Your task to perform on an android device: Open Yahoo.com Image 0: 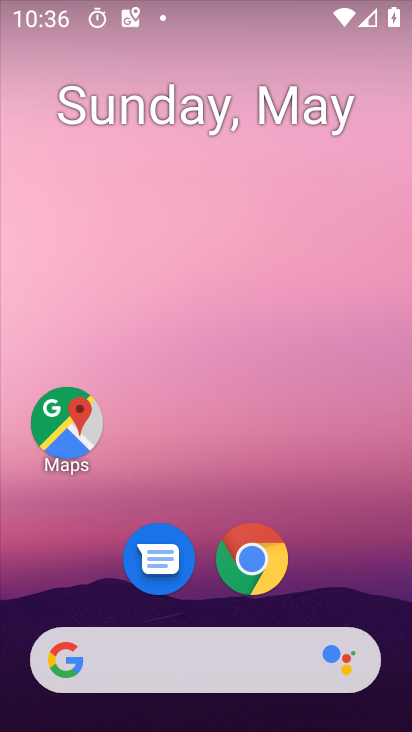
Step 0: drag from (380, 581) to (346, 98)
Your task to perform on an android device: Open Yahoo.com Image 1: 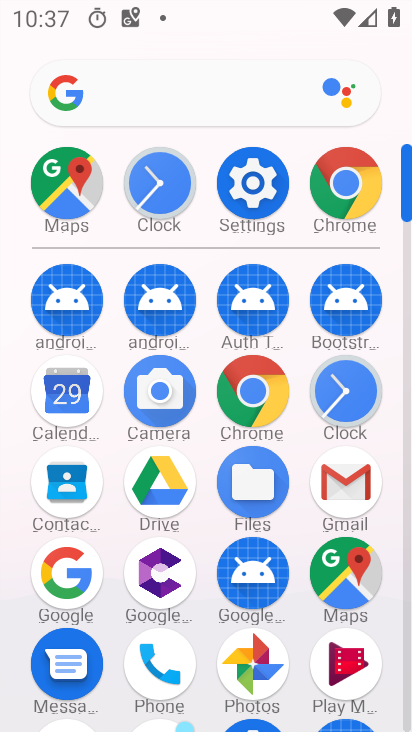
Step 1: click (272, 412)
Your task to perform on an android device: Open Yahoo.com Image 2: 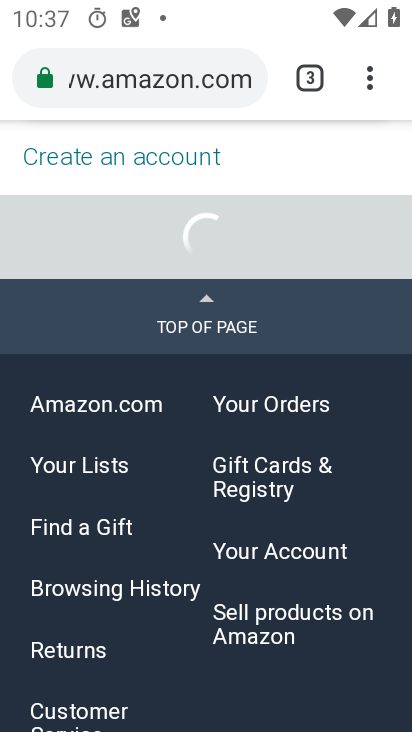
Step 2: drag from (229, 176) to (255, 597)
Your task to perform on an android device: Open Yahoo.com Image 3: 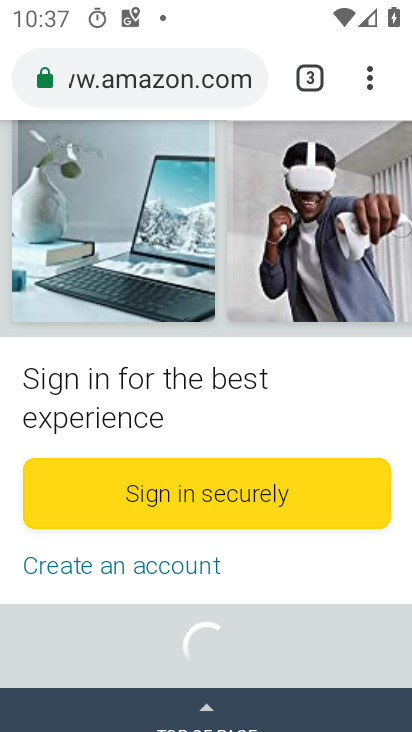
Step 3: click (194, 82)
Your task to perform on an android device: Open Yahoo.com Image 4: 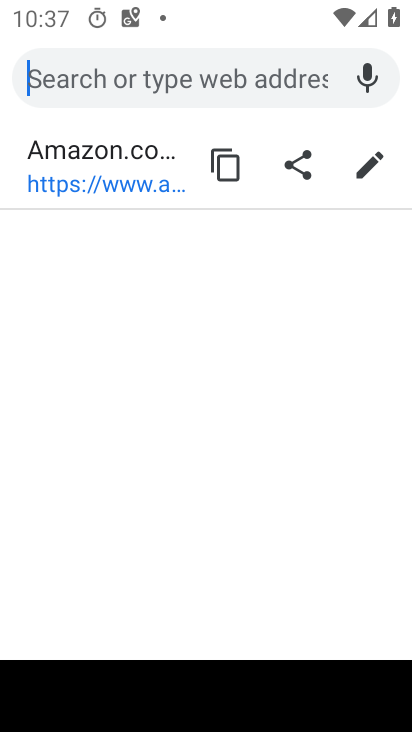
Step 4: type "yahoo.com"
Your task to perform on an android device: Open Yahoo.com Image 5: 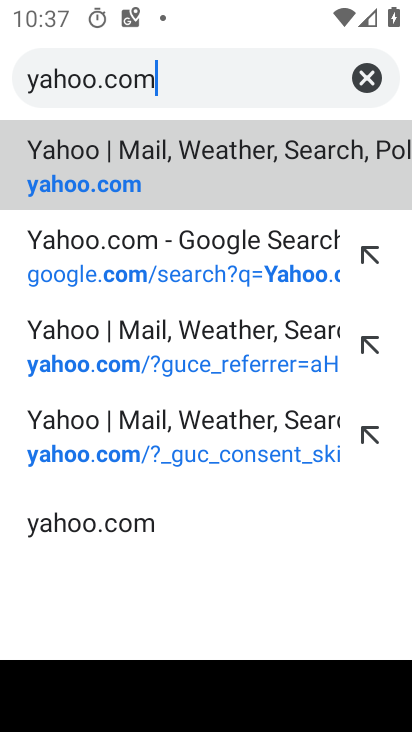
Step 5: click (155, 177)
Your task to perform on an android device: Open Yahoo.com Image 6: 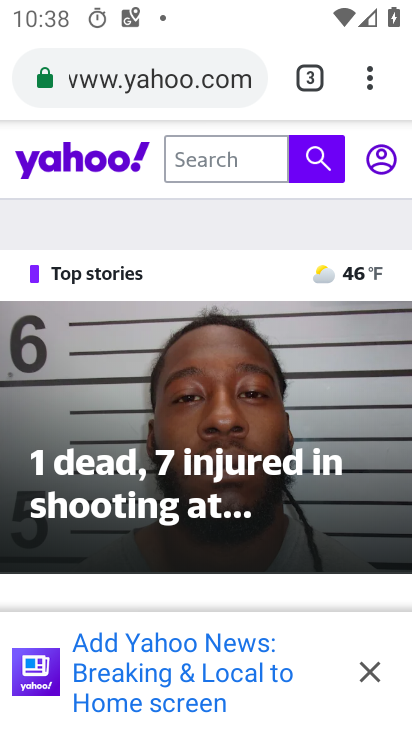
Step 6: task complete